Your task to perform on an android device: Open internet settings Image 0: 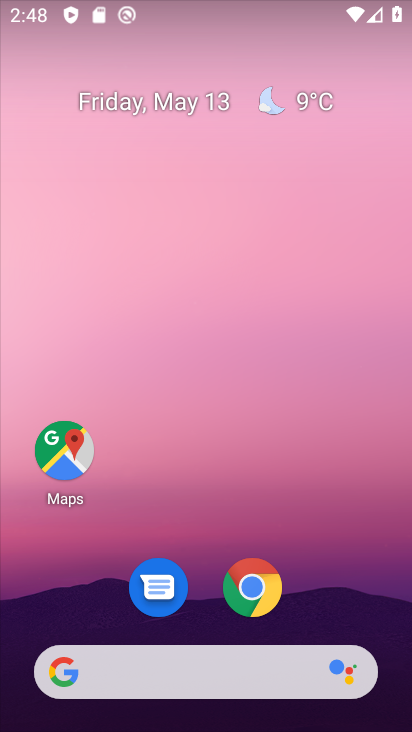
Step 0: drag from (318, 578) to (305, 170)
Your task to perform on an android device: Open internet settings Image 1: 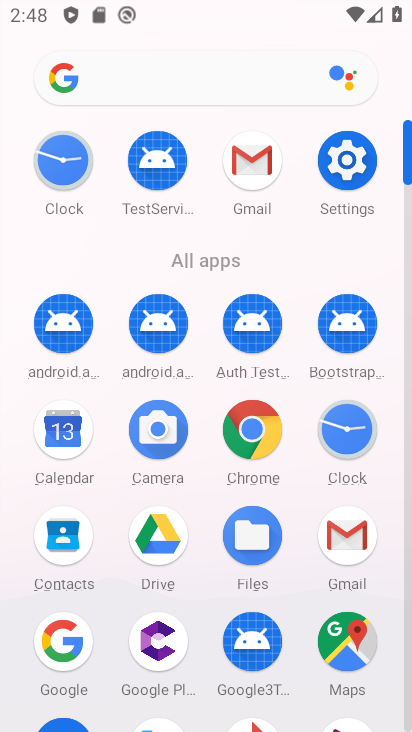
Step 1: click (356, 182)
Your task to perform on an android device: Open internet settings Image 2: 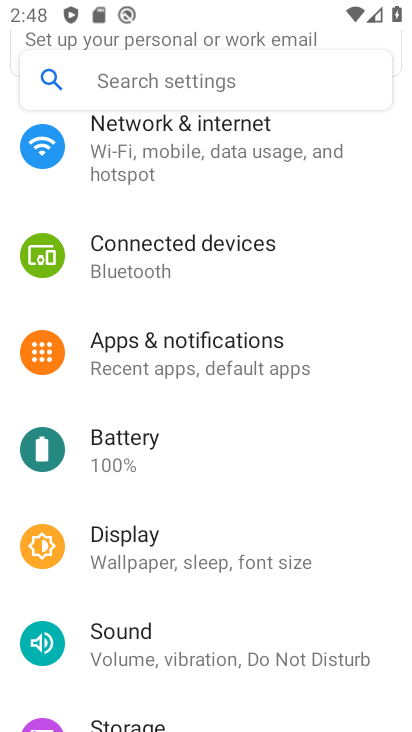
Step 2: click (314, 160)
Your task to perform on an android device: Open internet settings Image 3: 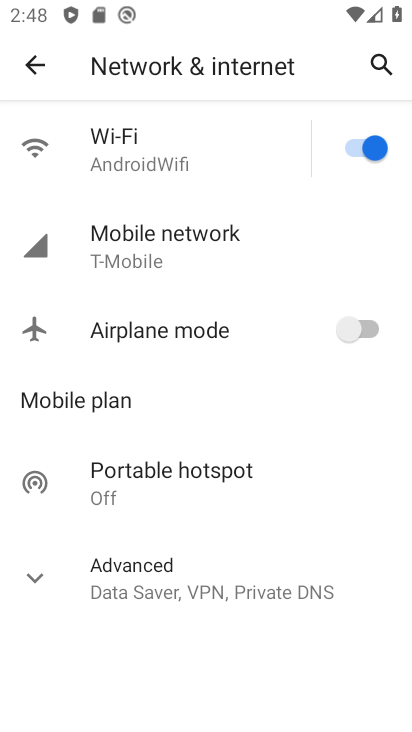
Step 3: task complete